Your task to perform on an android device: Open Reddit.com Image 0: 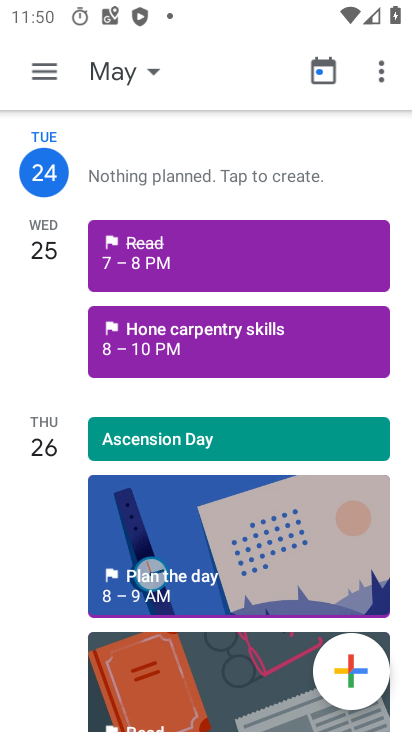
Step 0: press back button
Your task to perform on an android device: Open Reddit.com Image 1: 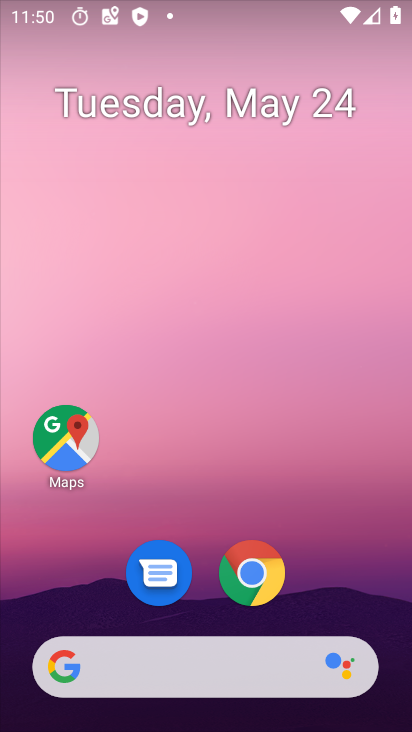
Step 1: drag from (331, 545) to (241, 6)
Your task to perform on an android device: Open Reddit.com Image 2: 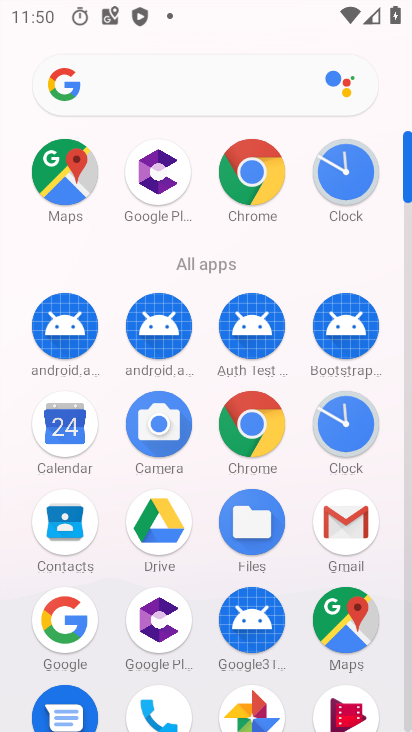
Step 2: click (250, 173)
Your task to perform on an android device: Open Reddit.com Image 3: 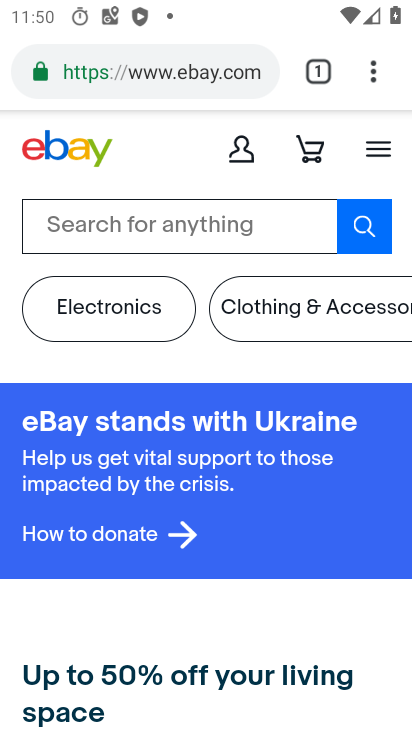
Step 3: click (170, 63)
Your task to perform on an android device: Open Reddit.com Image 4: 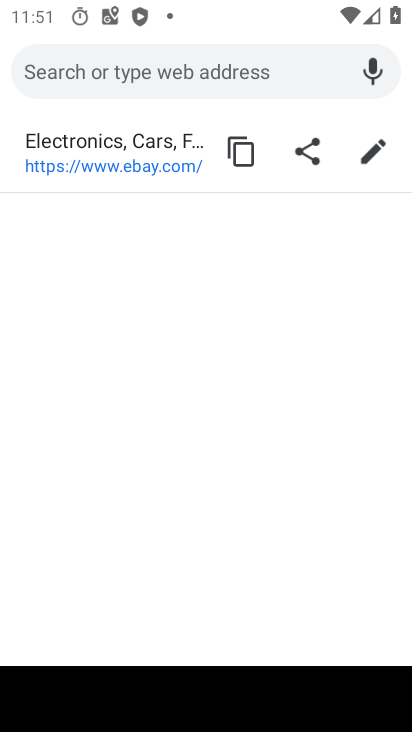
Step 4: type "Reddit.com"
Your task to perform on an android device: Open Reddit.com Image 5: 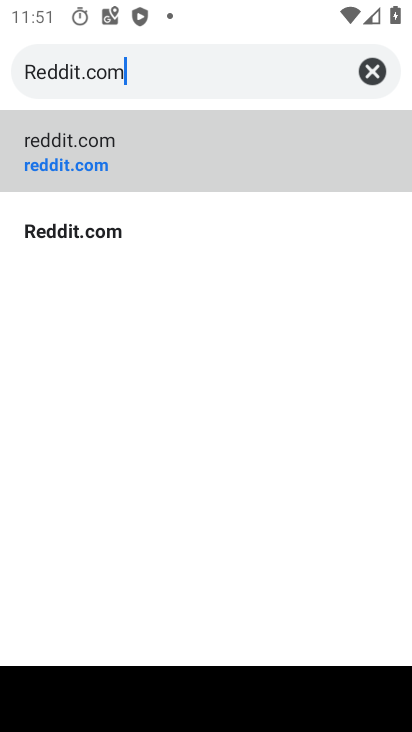
Step 5: type ""
Your task to perform on an android device: Open Reddit.com Image 6: 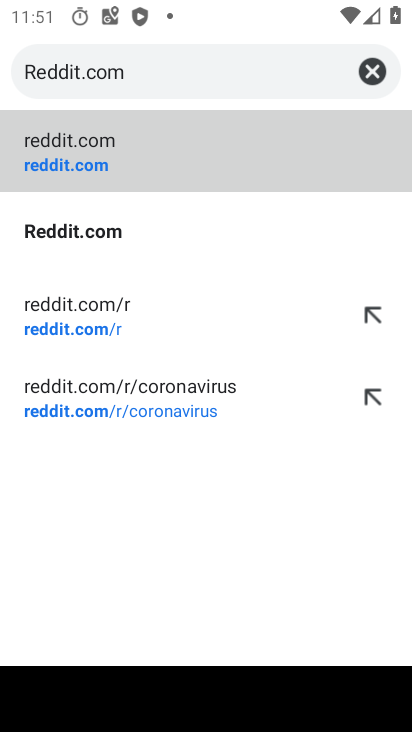
Step 6: click (220, 165)
Your task to perform on an android device: Open Reddit.com Image 7: 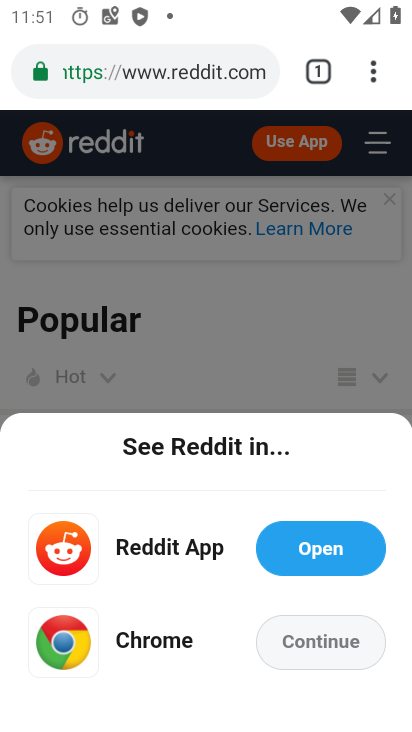
Step 7: task complete